Your task to perform on an android device: Open calendar and show me the third week of next month Image 0: 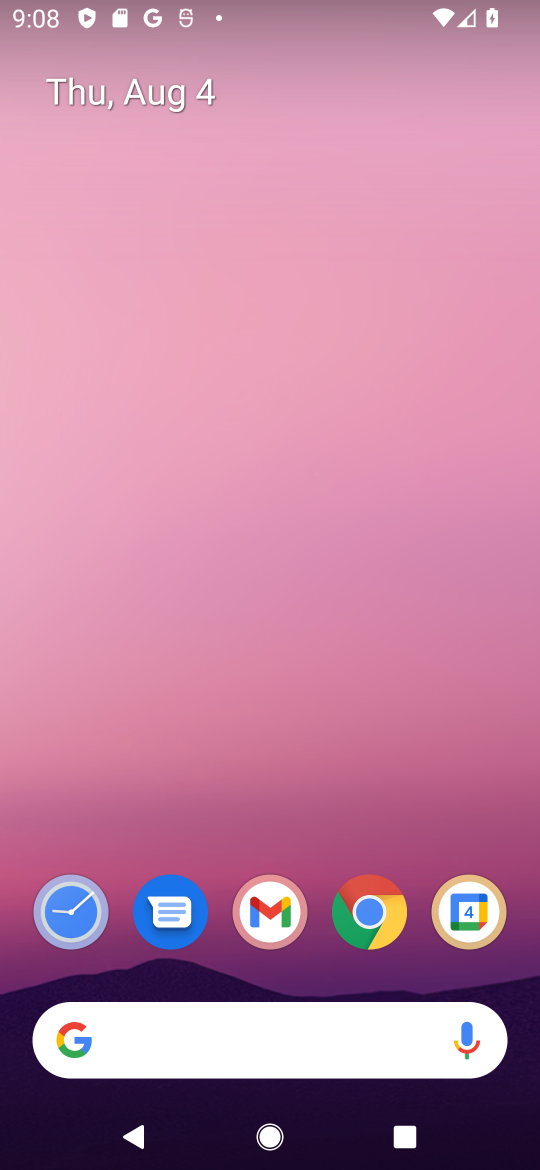
Step 0: click (470, 920)
Your task to perform on an android device: Open calendar and show me the third week of next month Image 1: 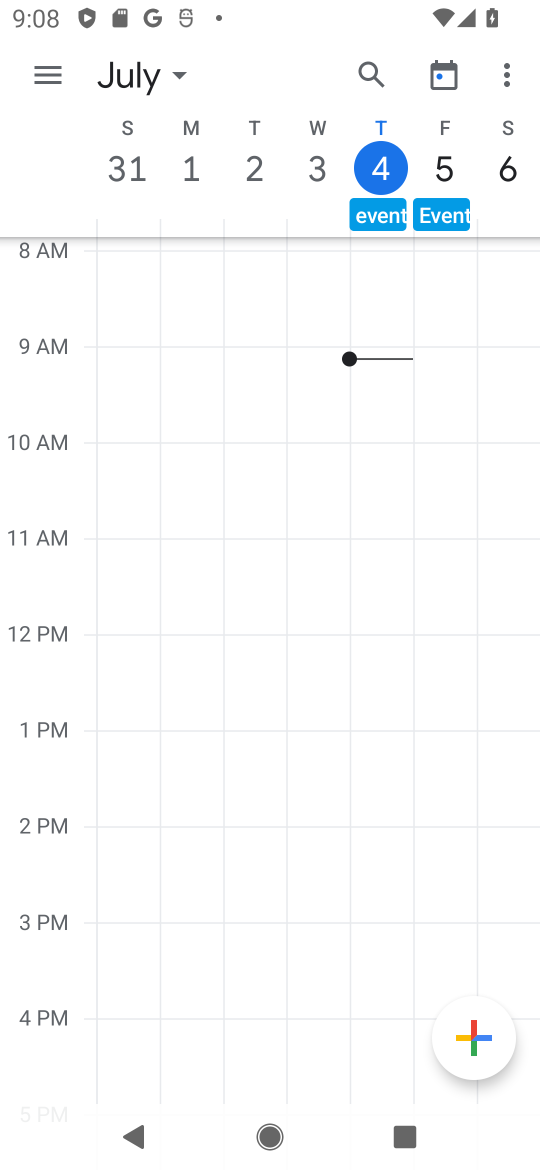
Step 1: click (167, 67)
Your task to perform on an android device: Open calendar and show me the third week of next month Image 2: 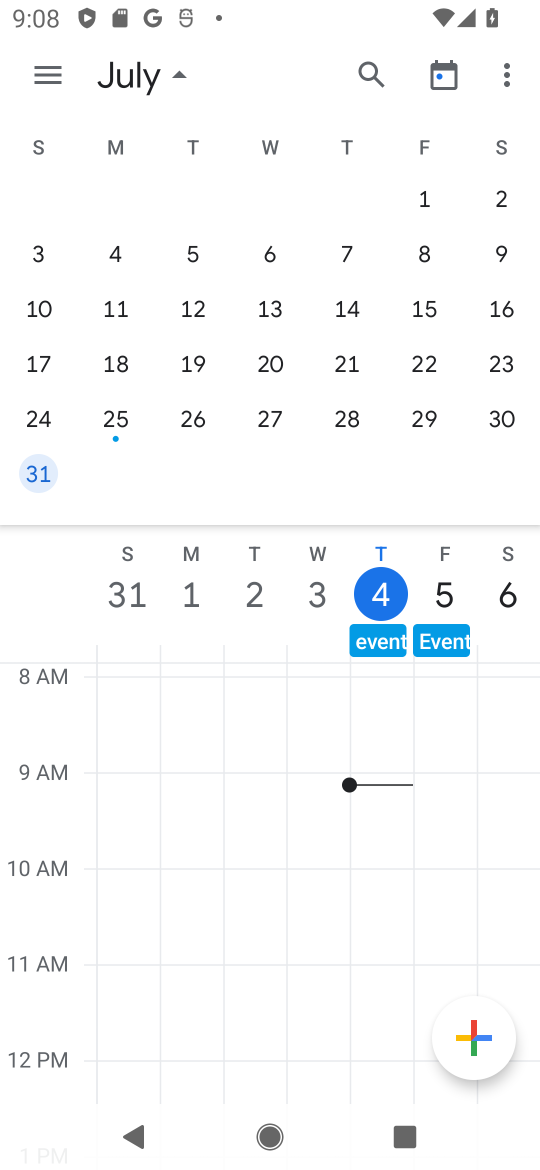
Step 2: drag from (480, 372) to (119, 317)
Your task to perform on an android device: Open calendar and show me the third week of next month Image 3: 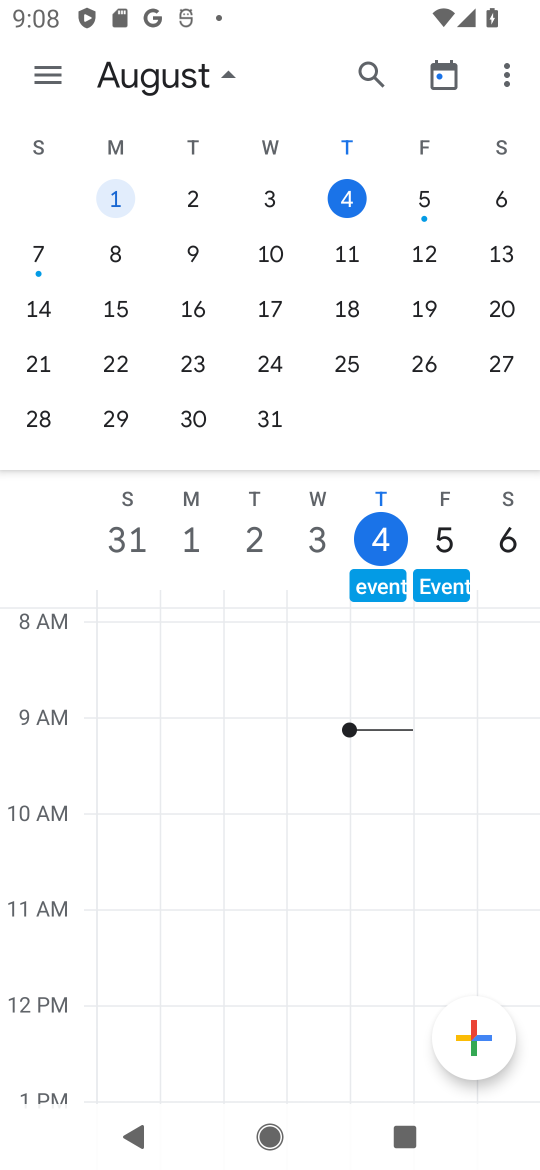
Step 3: drag from (456, 318) to (50, 236)
Your task to perform on an android device: Open calendar and show me the third week of next month Image 4: 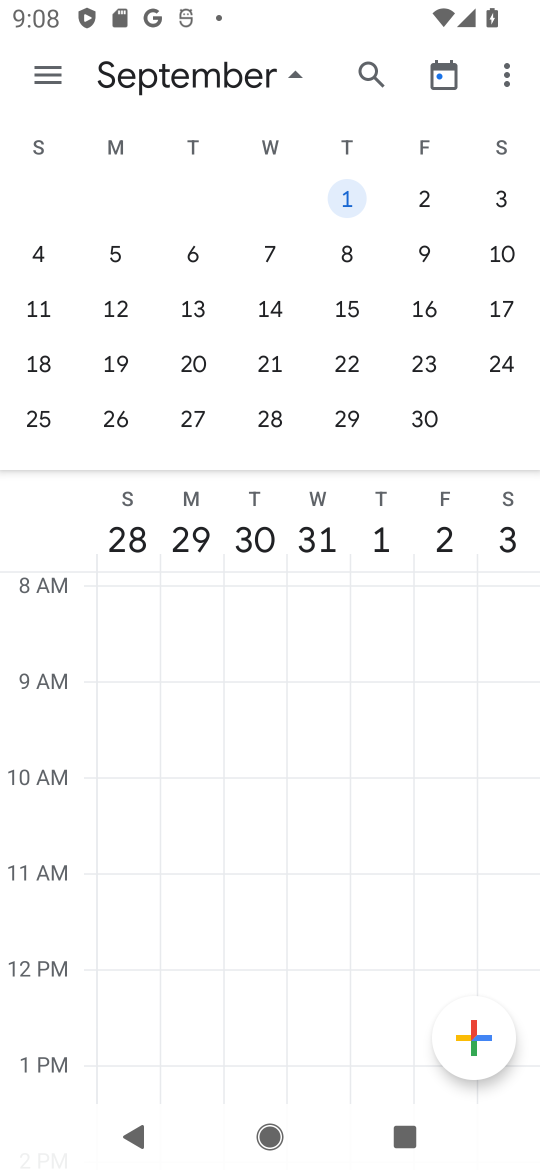
Step 4: click (342, 351)
Your task to perform on an android device: Open calendar and show me the third week of next month Image 5: 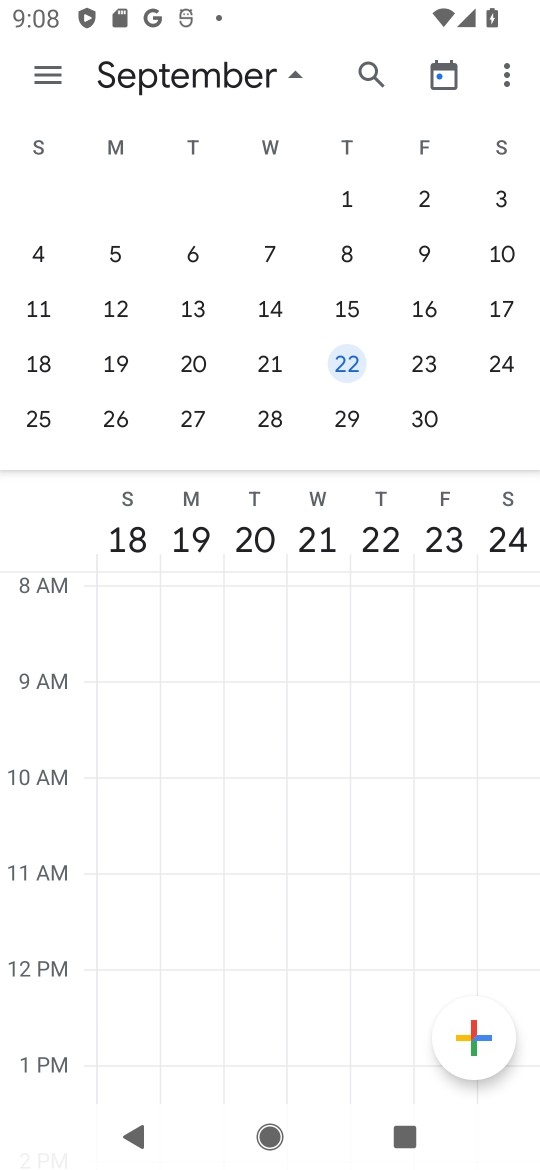
Step 5: task complete